Your task to perform on an android device: Do I have any events today? Image 0: 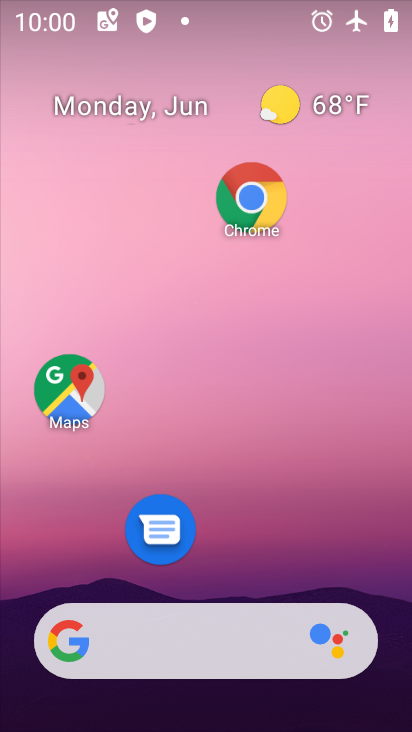
Step 0: drag from (246, 513) to (243, 58)
Your task to perform on an android device: Do I have any events today? Image 1: 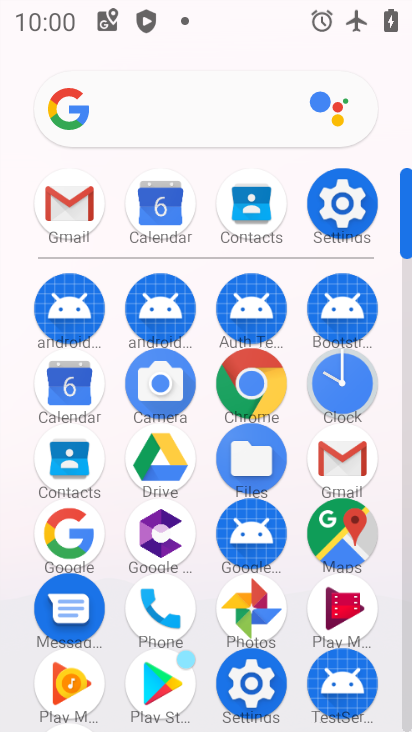
Step 1: click (176, 228)
Your task to perform on an android device: Do I have any events today? Image 2: 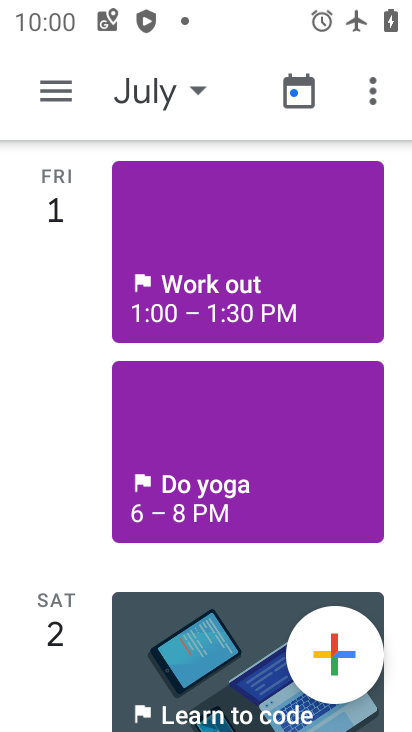
Step 2: click (203, 97)
Your task to perform on an android device: Do I have any events today? Image 3: 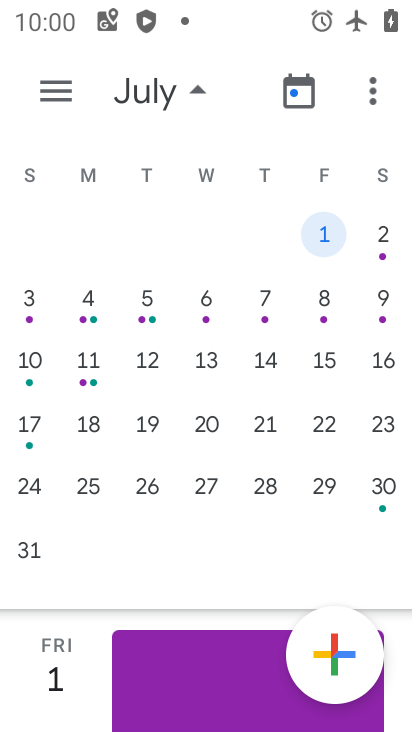
Step 3: drag from (57, 323) to (411, 360)
Your task to perform on an android device: Do I have any events today? Image 4: 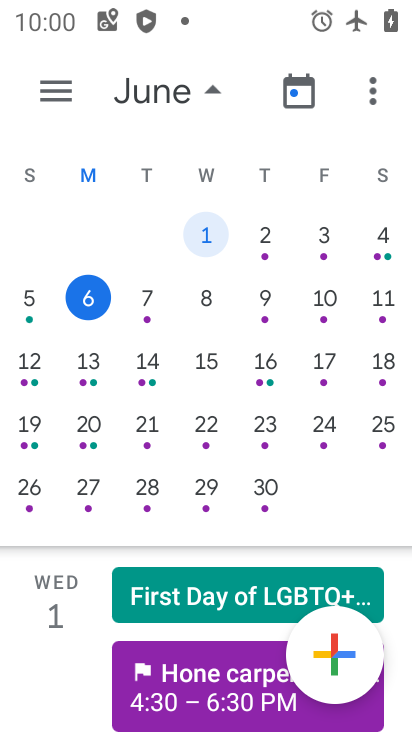
Step 4: click (83, 307)
Your task to perform on an android device: Do I have any events today? Image 5: 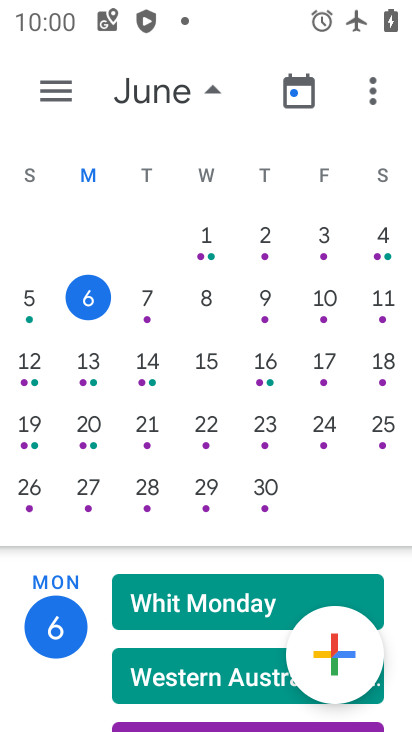
Step 5: task complete